Your task to perform on an android device: Search for "asus rog" on newegg, select the first entry, and add it to the cart. Image 0: 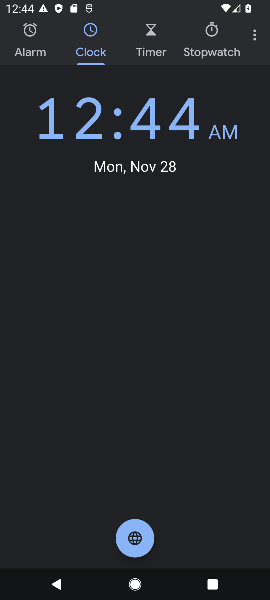
Step 0: press home button
Your task to perform on an android device: Search for "asus rog" on newegg, select the first entry, and add it to the cart. Image 1: 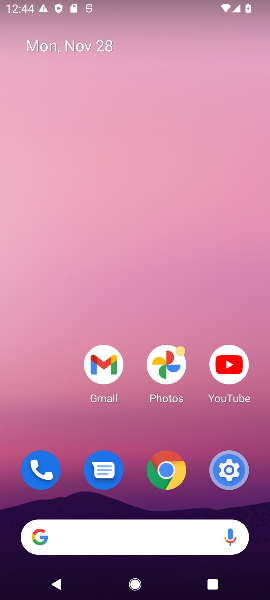
Step 1: click (116, 530)
Your task to perform on an android device: Search for "asus rog" on newegg, select the first entry, and add it to the cart. Image 2: 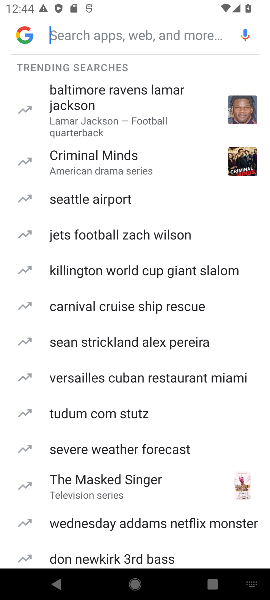
Step 2: type "newegg"
Your task to perform on an android device: Search for "asus rog" on newegg, select the first entry, and add it to the cart. Image 3: 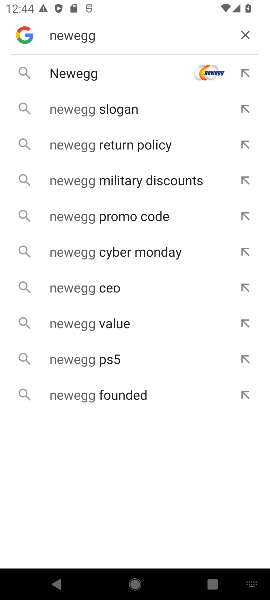
Step 3: click (78, 67)
Your task to perform on an android device: Search for "asus rog" on newegg, select the first entry, and add it to the cart. Image 4: 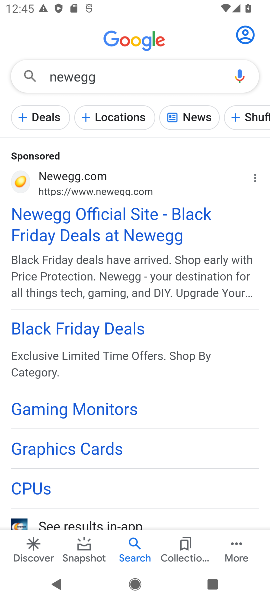
Step 4: click (50, 233)
Your task to perform on an android device: Search for "asus rog" on newegg, select the first entry, and add it to the cart. Image 5: 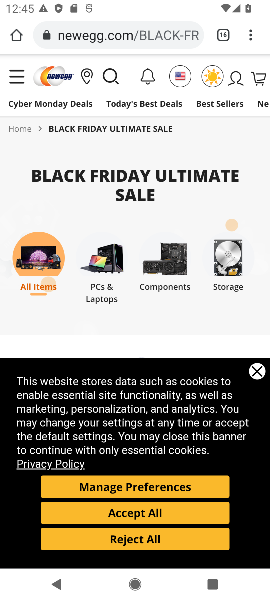
Step 5: click (115, 81)
Your task to perform on an android device: Search for "asus rog" on newegg, select the first entry, and add it to the cart. Image 6: 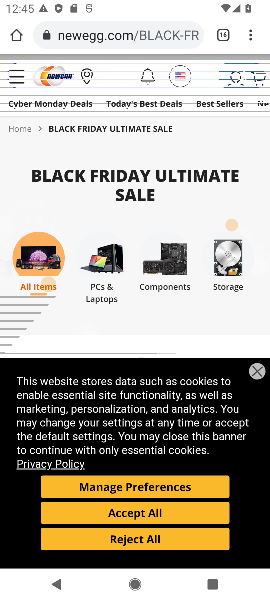
Step 6: task complete